Your task to perform on an android device: toggle notification dots Image 0: 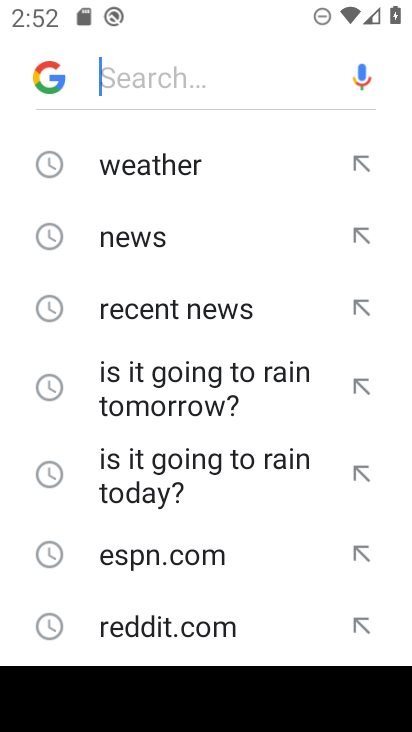
Step 0: press back button
Your task to perform on an android device: toggle notification dots Image 1: 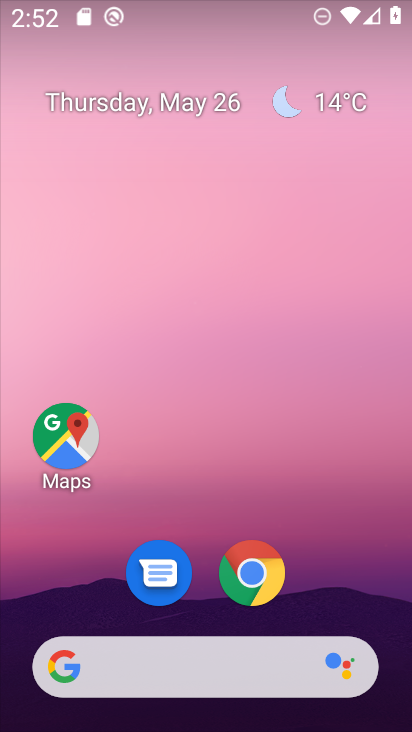
Step 1: drag from (340, 609) to (283, 34)
Your task to perform on an android device: toggle notification dots Image 2: 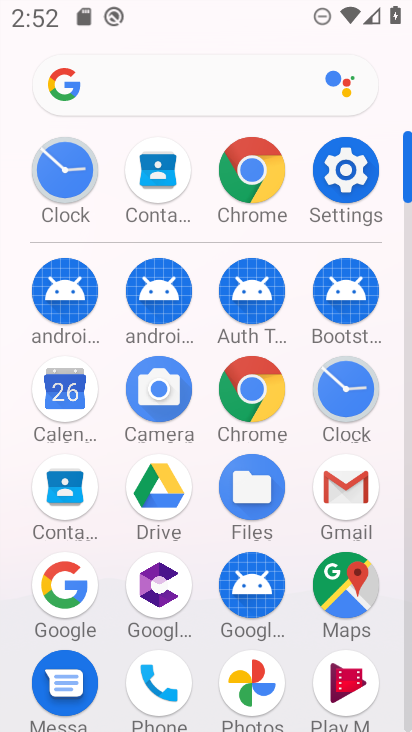
Step 2: drag from (9, 550) to (13, 260)
Your task to perform on an android device: toggle notification dots Image 3: 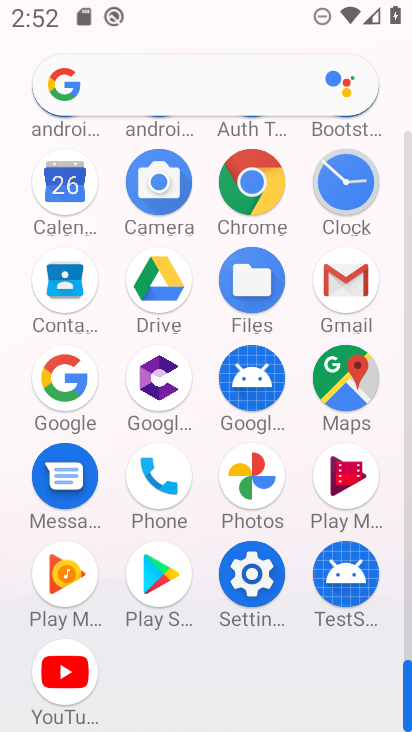
Step 3: click (248, 572)
Your task to perform on an android device: toggle notification dots Image 4: 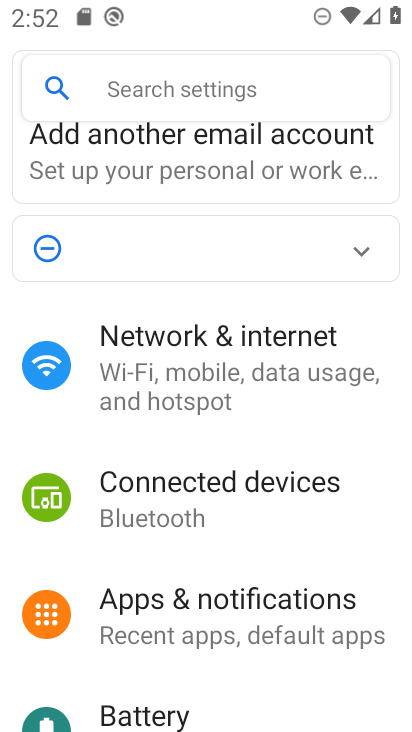
Step 4: drag from (228, 642) to (233, 259)
Your task to perform on an android device: toggle notification dots Image 5: 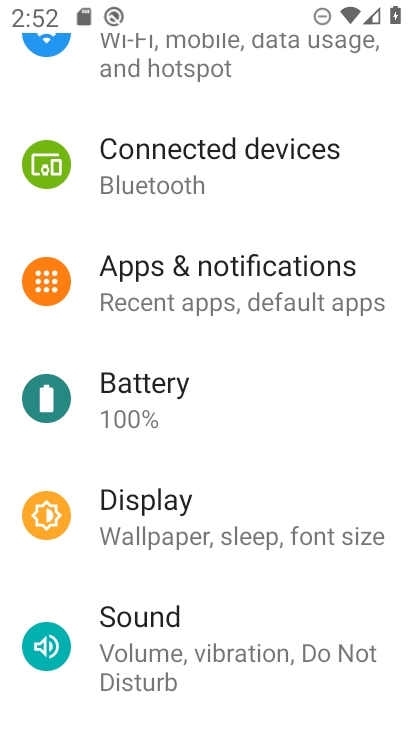
Step 5: drag from (240, 559) to (234, 183)
Your task to perform on an android device: toggle notification dots Image 6: 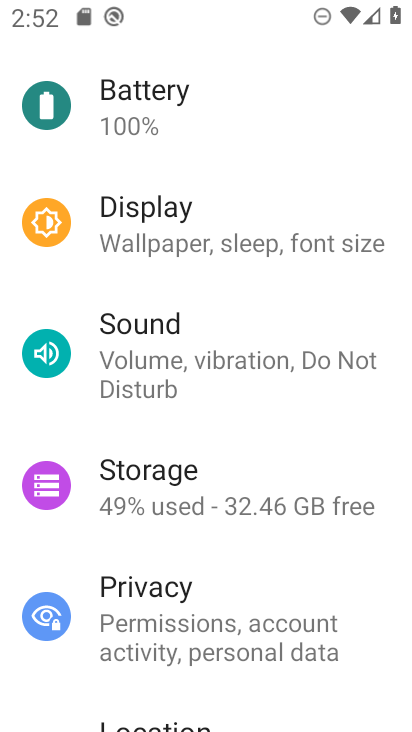
Step 6: drag from (265, 612) to (259, 224)
Your task to perform on an android device: toggle notification dots Image 7: 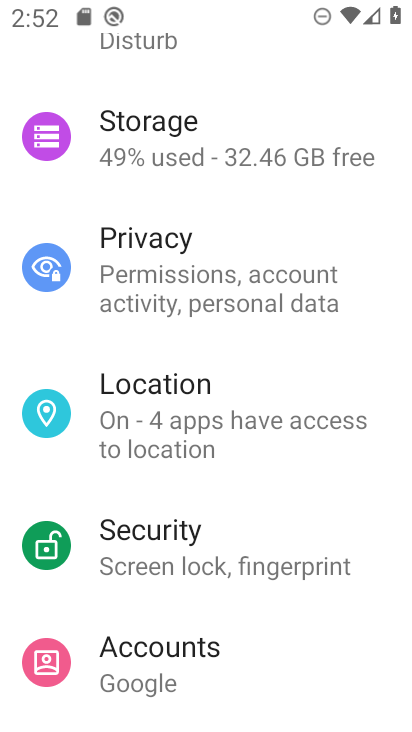
Step 7: drag from (268, 665) to (249, 224)
Your task to perform on an android device: toggle notification dots Image 8: 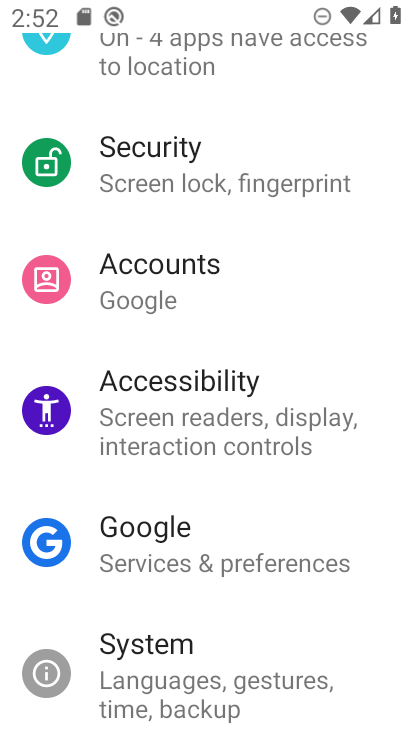
Step 8: drag from (246, 627) to (247, 191)
Your task to perform on an android device: toggle notification dots Image 9: 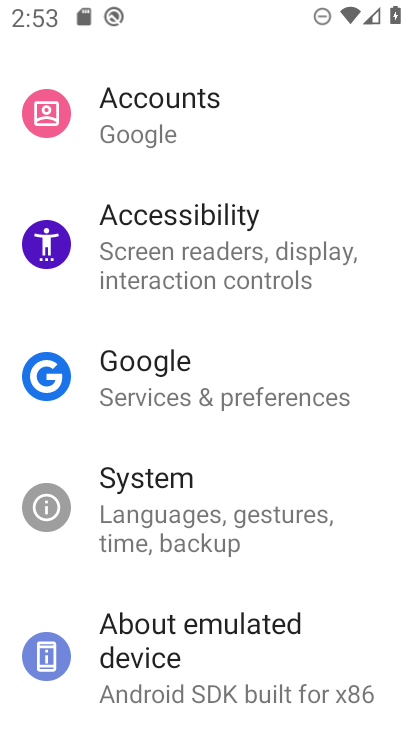
Step 9: drag from (251, 187) to (222, 647)
Your task to perform on an android device: toggle notification dots Image 10: 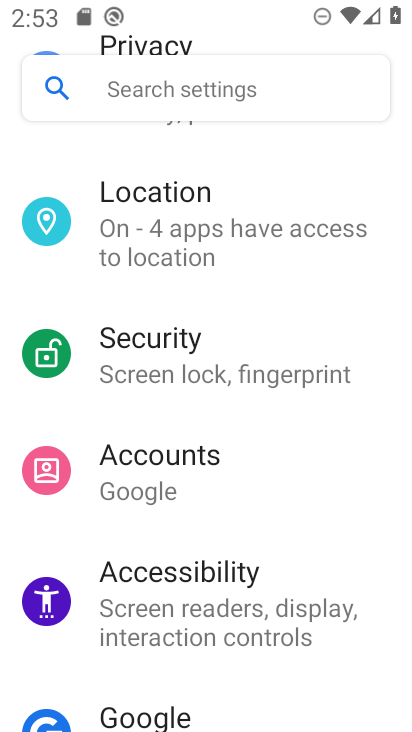
Step 10: drag from (231, 280) to (220, 669)
Your task to perform on an android device: toggle notification dots Image 11: 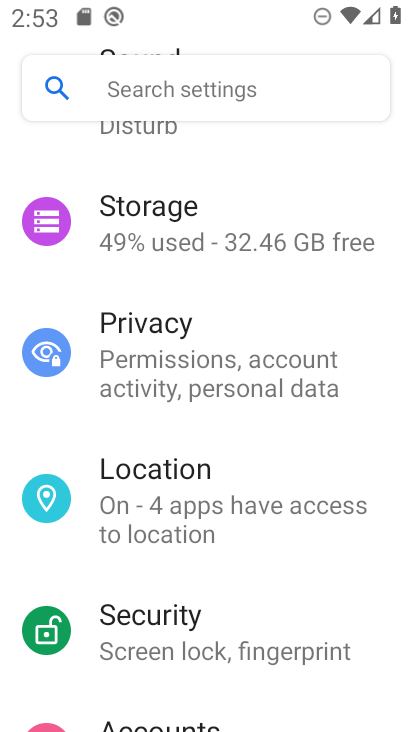
Step 11: click (213, 500)
Your task to perform on an android device: toggle notification dots Image 12: 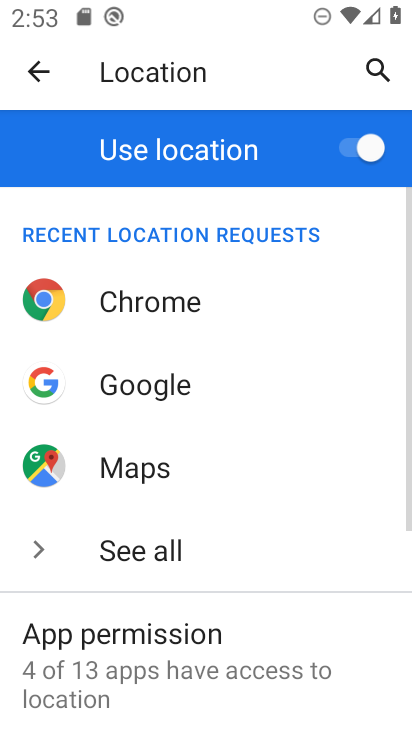
Step 12: drag from (252, 606) to (249, 249)
Your task to perform on an android device: toggle notification dots Image 13: 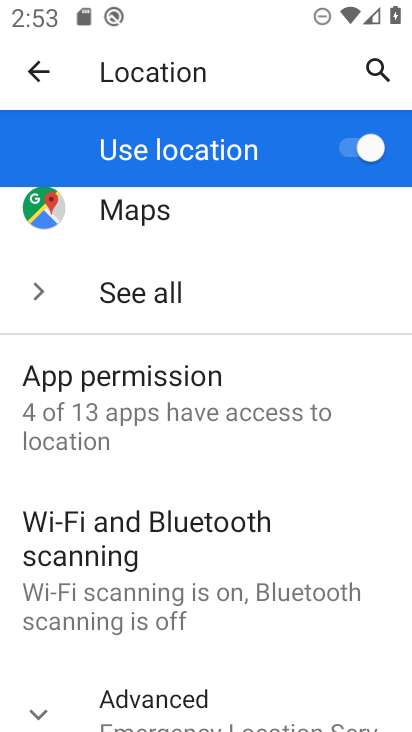
Step 13: click (182, 357)
Your task to perform on an android device: toggle notification dots Image 14: 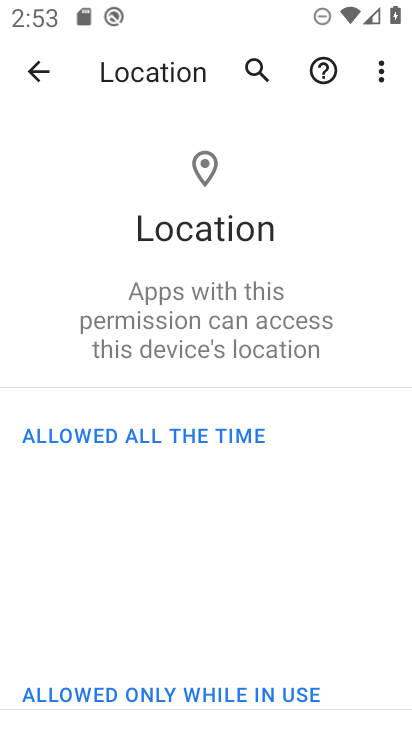
Step 14: click (34, 74)
Your task to perform on an android device: toggle notification dots Image 15: 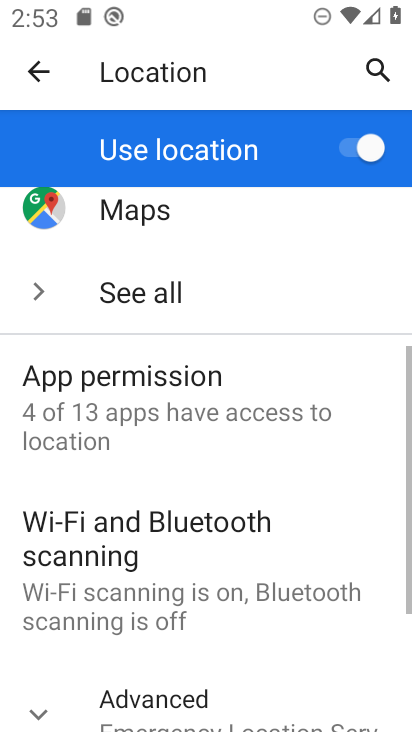
Step 15: drag from (286, 598) to (249, 255)
Your task to perform on an android device: toggle notification dots Image 16: 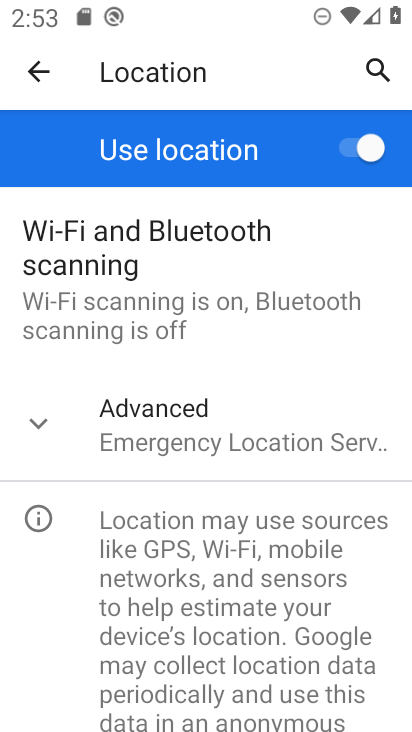
Step 16: click (63, 435)
Your task to perform on an android device: toggle notification dots Image 17: 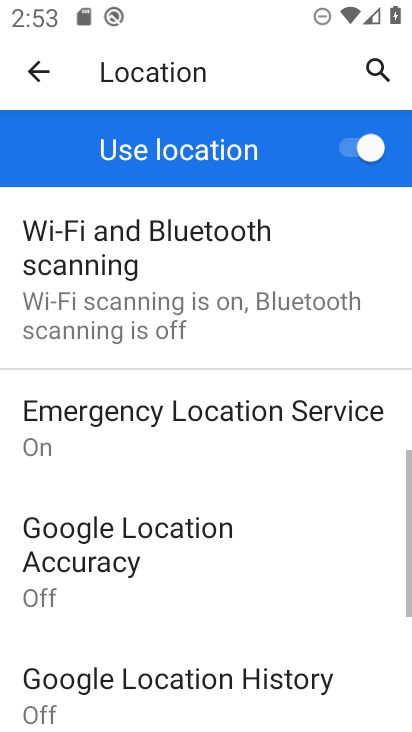
Step 17: drag from (299, 639) to (255, 304)
Your task to perform on an android device: toggle notification dots Image 18: 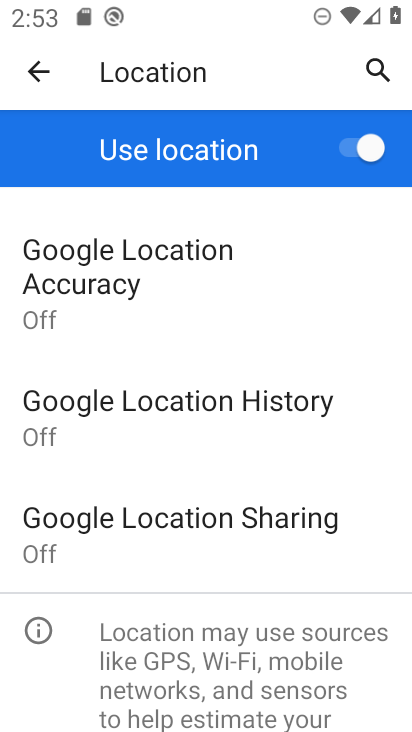
Step 18: drag from (251, 584) to (244, 202)
Your task to perform on an android device: toggle notification dots Image 19: 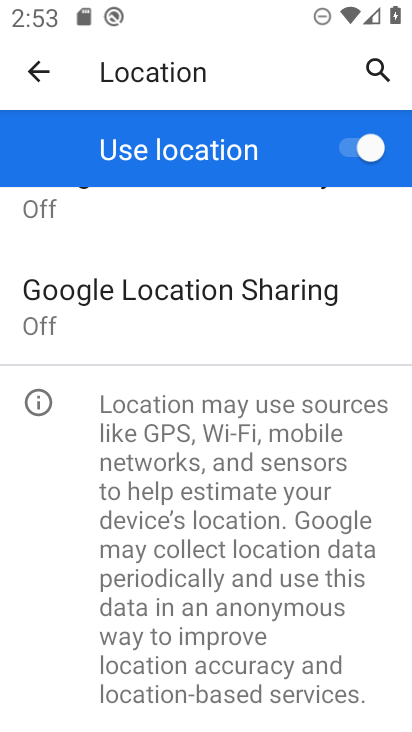
Step 19: drag from (216, 336) to (215, 680)
Your task to perform on an android device: toggle notification dots Image 20: 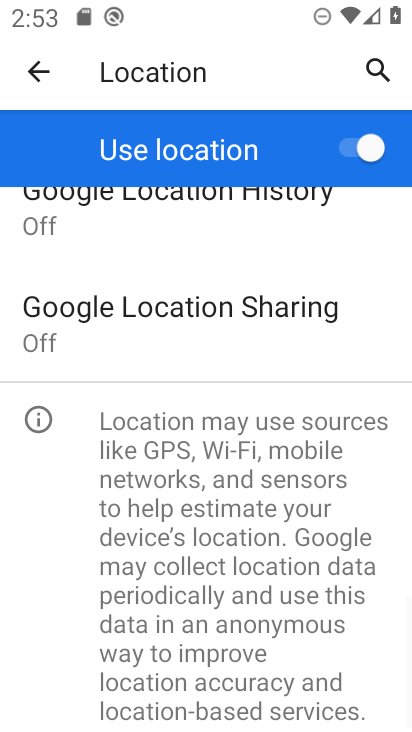
Step 20: drag from (211, 306) to (188, 692)
Your task to perform on an android device: toggle notification dots Image 21: 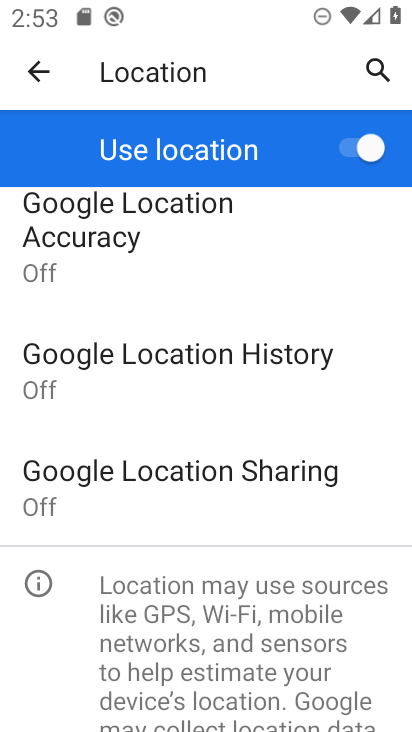
Step 21: drag from (203, 372) to (185, 630)
Your task to perform on an android device: toggle notification dots Image 22: 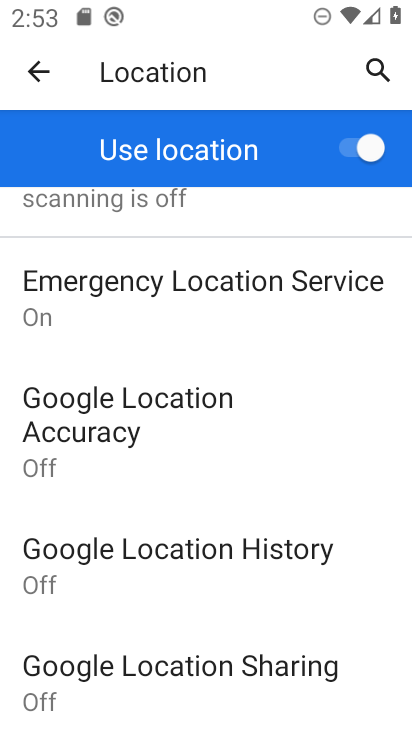
Step 22: click (44, 76)
Your task to perform on an android device: toggle notification dots Image 23: 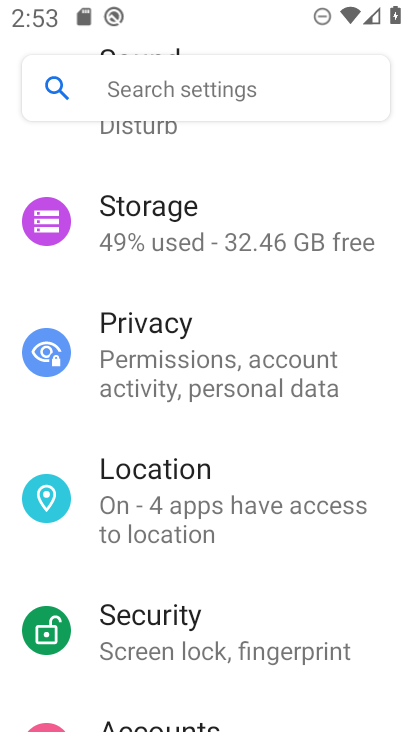
Step 23: drag from (282, 293) to (282, 605)
Your task to perform on an android device: toggle notification dots Image 24: 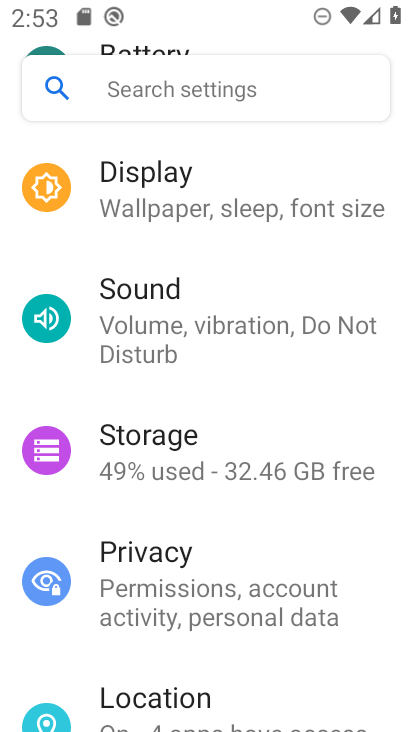
Step 24: drag from (257, 493) to (257, 582)
Your task to perform on an android device: toggle notification dots Image 25: 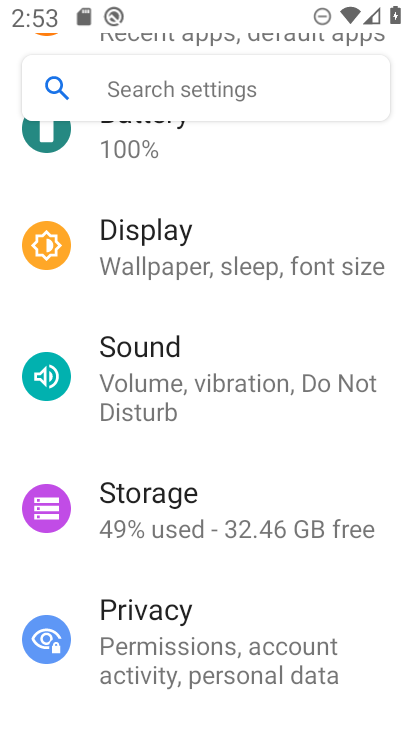
Step 25: drag from (226, 253) to (217, 586)
Your task to perform on an android device: toggle notification dots Image 26: 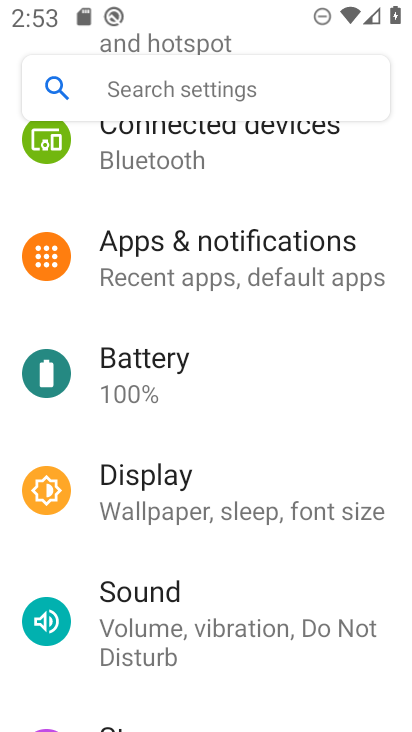
Step 26: click (244, 261)
Your task to perform on an android device: toggle notification dots Image 27: 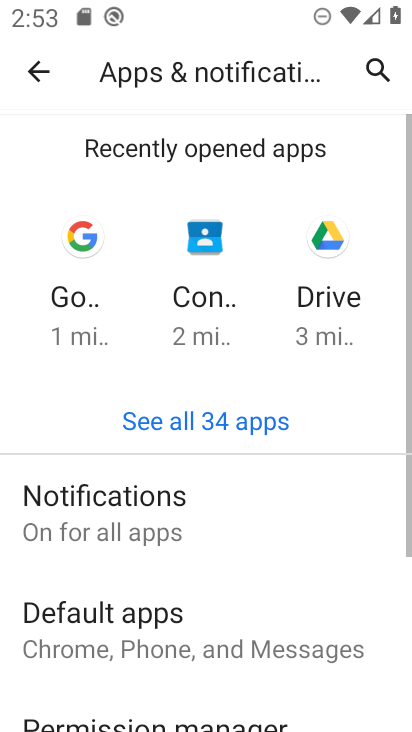
Step 27: drag from (319, 612) to (285, 196)
Your task to perform on an android device: toggle notification dots Image 28: 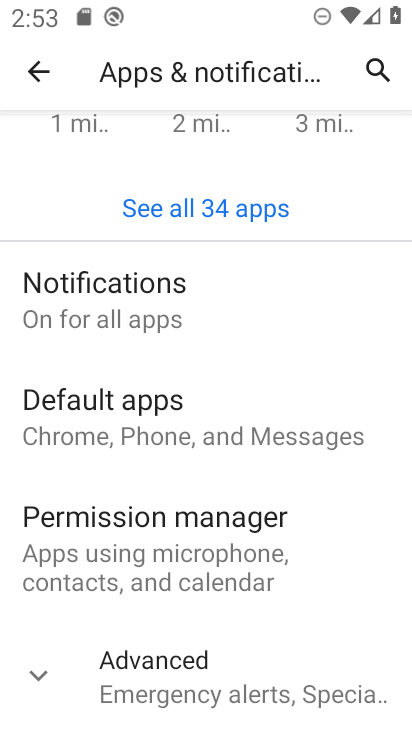
Step 28: click (111, 654)
Your task to perform on an android device: toggle notification dots Image 29: 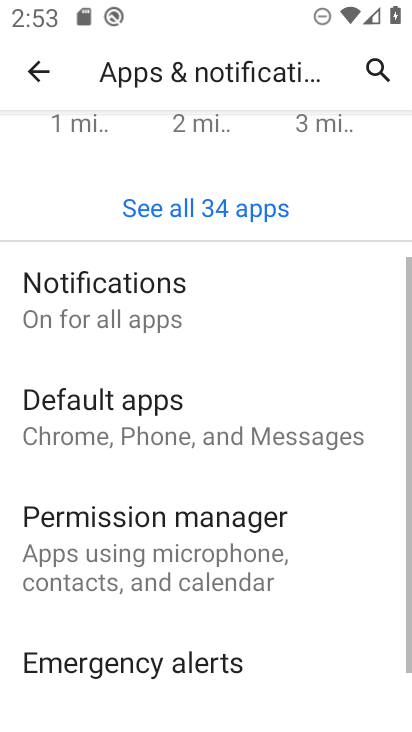
Step 29: drag from (278, 643) to (278, 229)
Your task to perform on an android device: toggle notification dots Image 30: 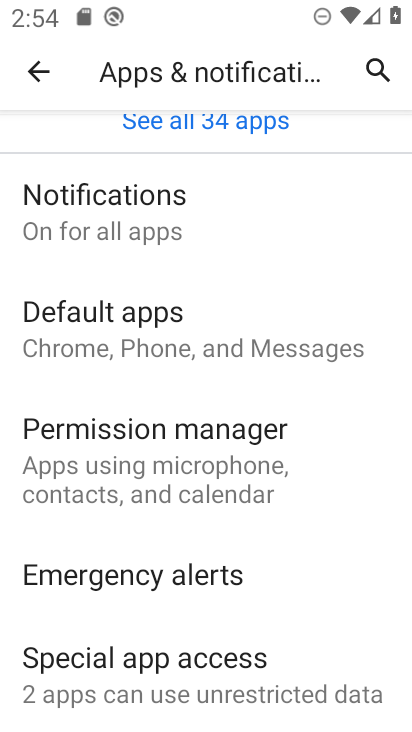
Step 30: click (170, 233)
Your task to perform on an android device: toggle notification dots Image 31: 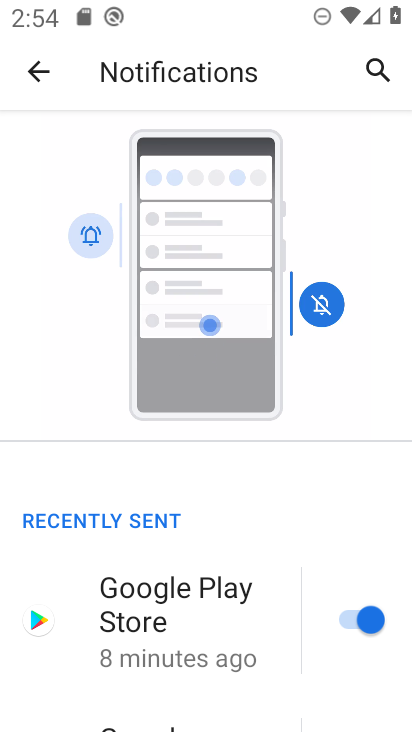
Step 31: drag from (202, 620) to (197, 183)
Your task to perform on an android device: toggle notification dots Image 32: 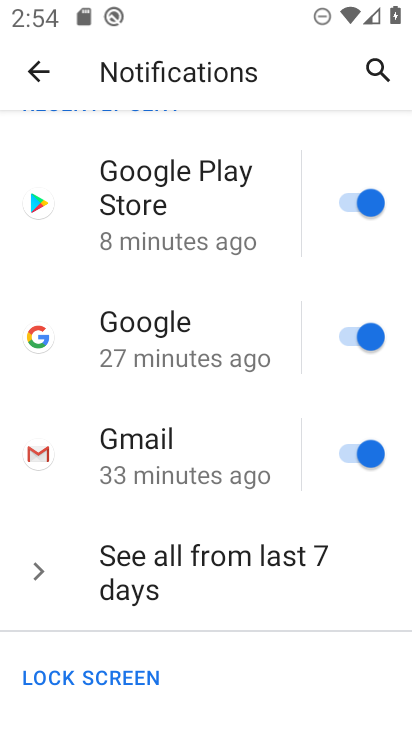
Step 32: drag from (171, 608) to (192, 151)
Your task to perform on an android device: toggle notification dots Image 33: 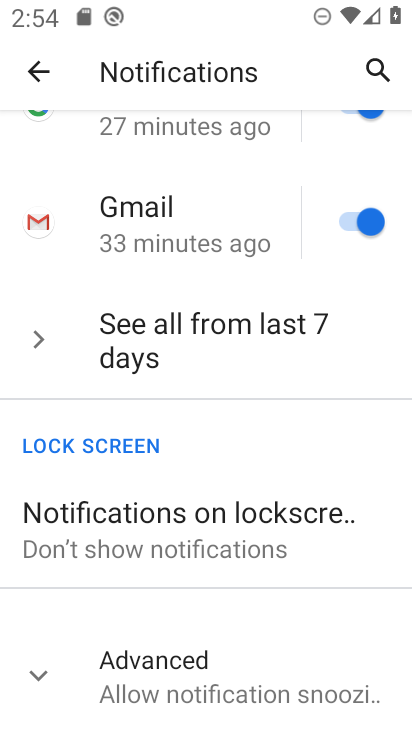
Step 33: click (160, 521)
Your task to perform on an android device: toggle notification dots Image 34: 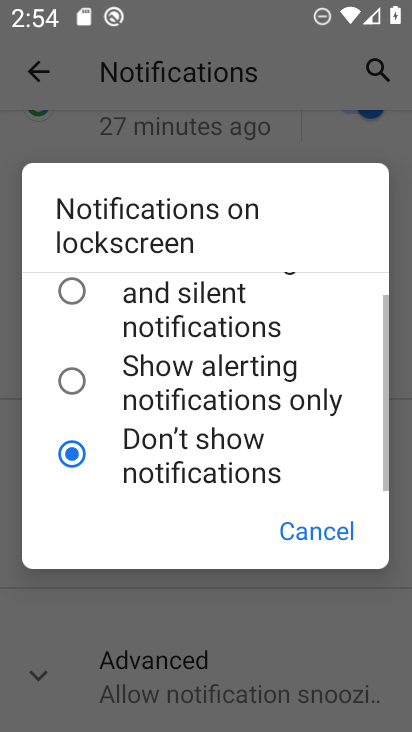
Step 34: click (297, 540)
Your task to perform on an android device: toggle notification dots Image 35: 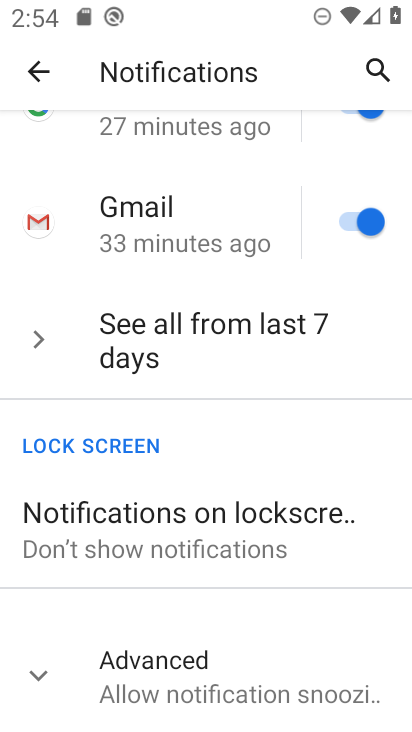
Step 35: click (124, 676)
Your task to perform on an android device: toggle notification dots Image 36: 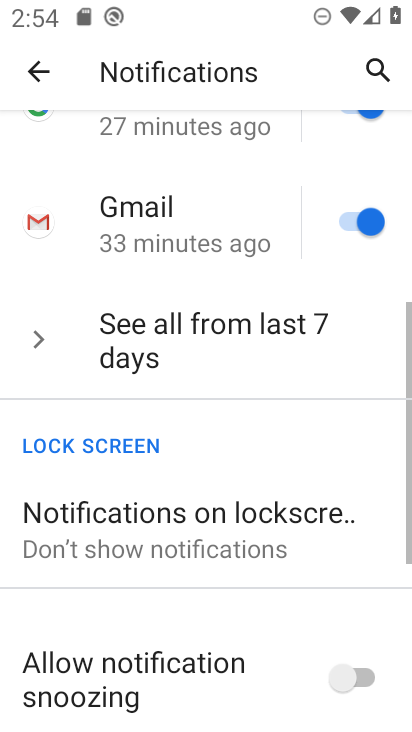
Step 36: drag from (210, 654) to (234, 224)
Your task to perform on an android device: toggle notification dots Image 37: 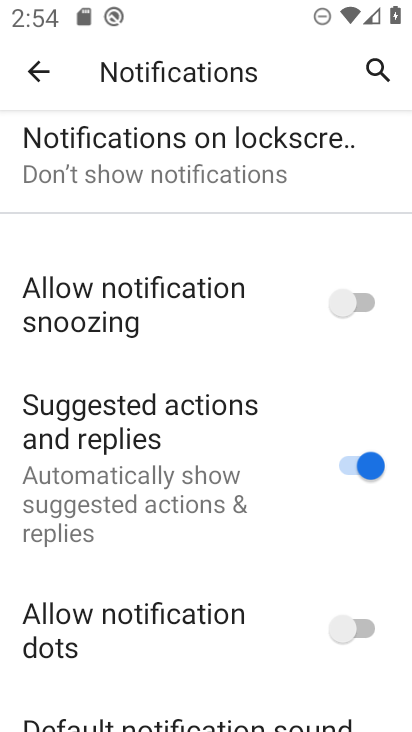
Step 37: click (365, 629)
Your task to perform on an android device: toggle notification dots Image 38: 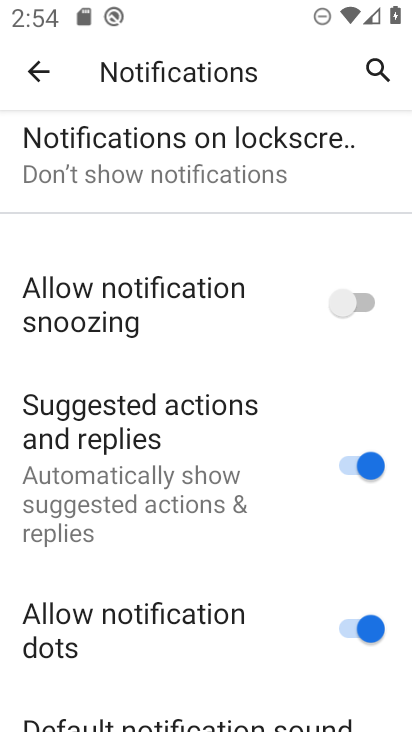
Step 38: task complete